Your task to perform on an android device: turn off notifications in google photos Image 0: 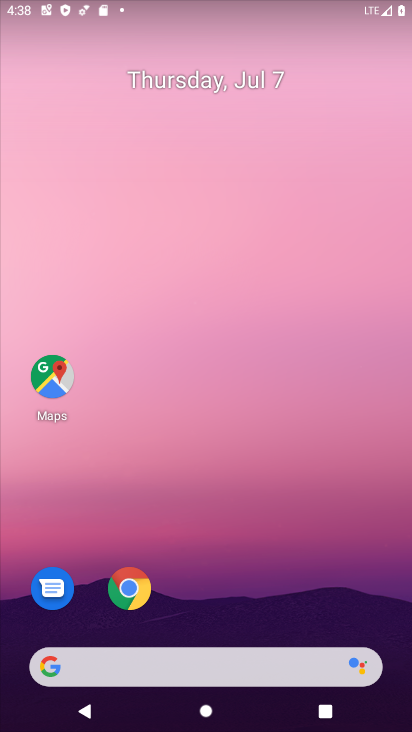
Step 0: press home button
Your task to perform on an android device: turn off notifications in google photos Image 1: 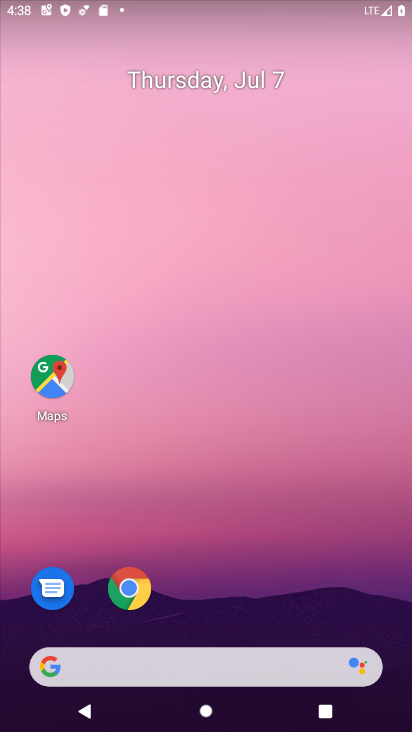
Step 1: drag from (323, 672) to (293, 81)
Your task to perform on an android device: turn off notifications in google photos Image 2: 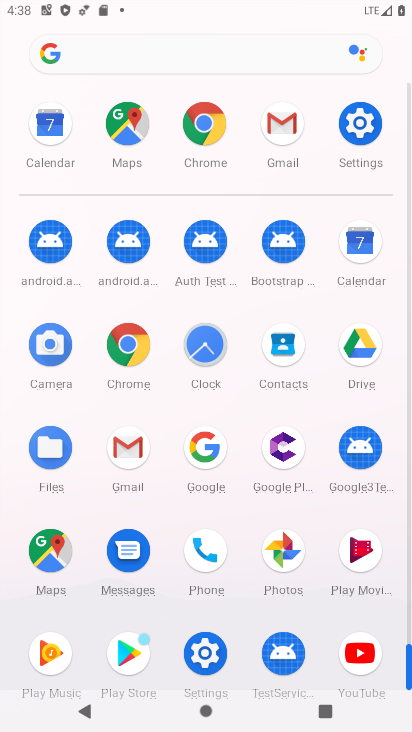
Step 2: click (273, 554)
Your task to perform on an android device: turn off notifications in google photos Image 3: 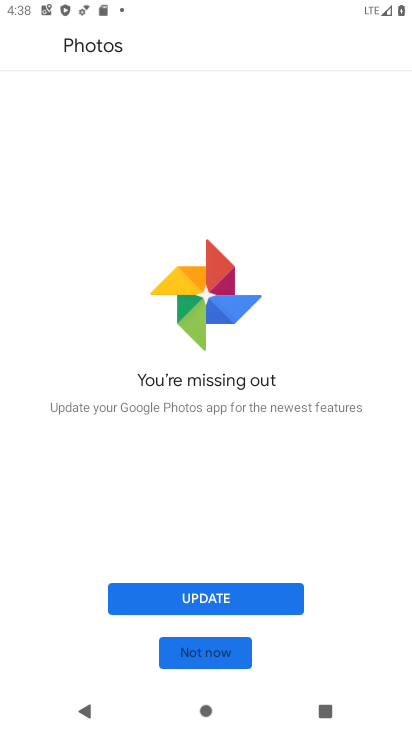
Step 3: click (233, 595)
Your task to perform on an android device: turn off notifications in google photos Image 4: 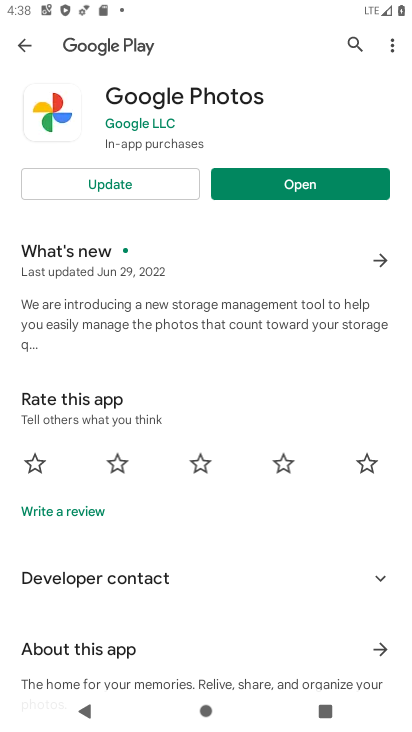
Step 4: click (159, 183)
Your task to perform on an android device: turn off notifications in google photos Image 5: 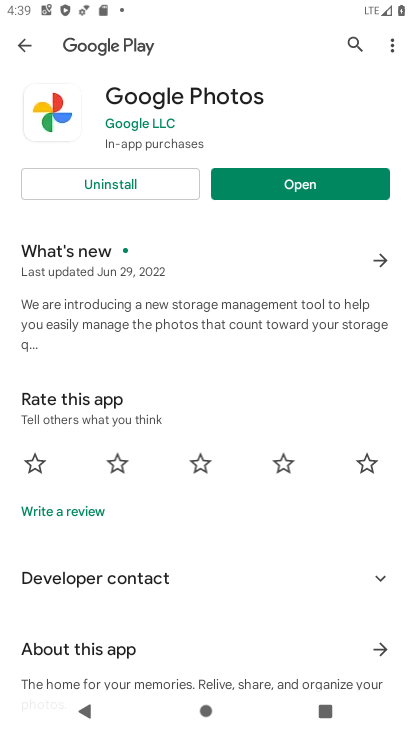
Step 5: click (240, 188)
Your task to perform on an android device: turn off notifications in google photos Image 6: 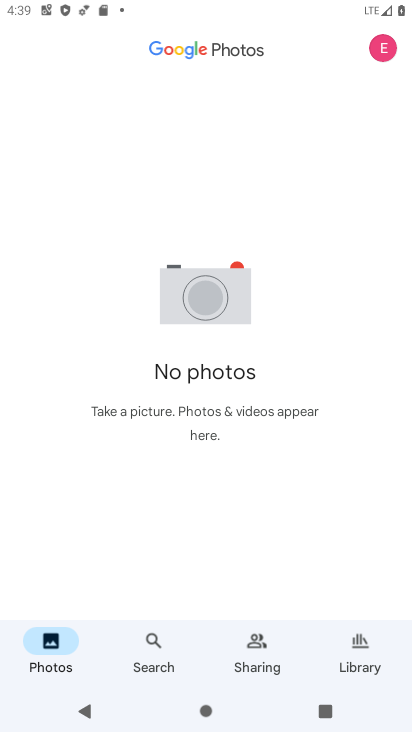
Step 6: click (376, 54)
Your task to perform on an android device: turn off notifications in google photos Image 7: 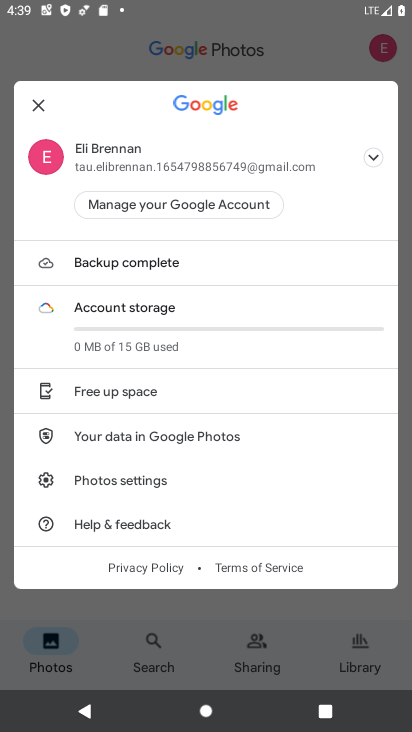
Step 7: click (155, 479)
Your task to perform on an android device: turn off notifications in google photos Image 8: 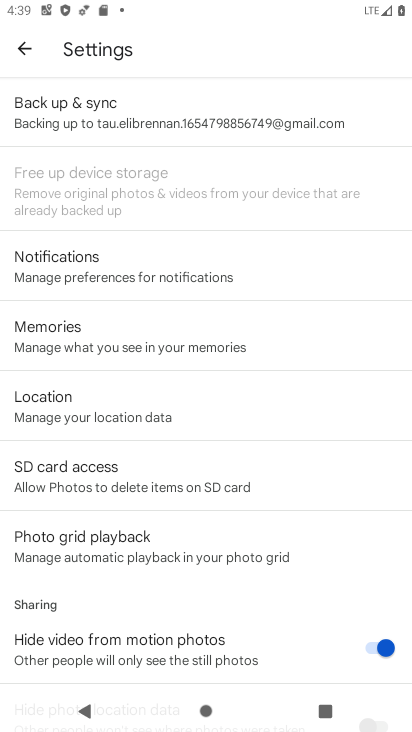
Step 8: click (105, 253)
Your task to perform on an android device: turn off notifications in google photos Image 9: 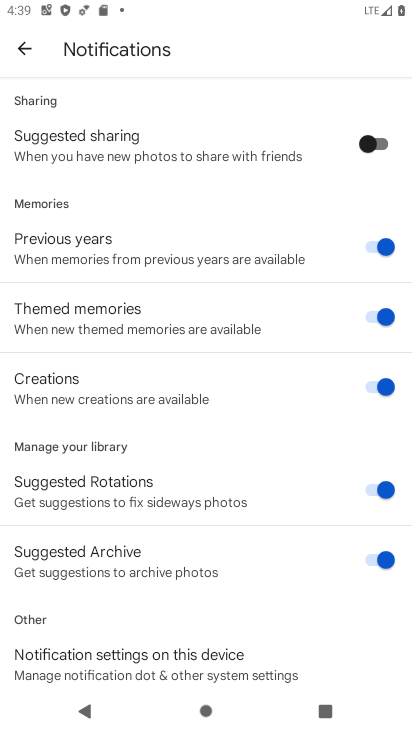
Step 9: drag from (163, 636) to (150, 539)
Your task to perform on an android device: turn off notifications in google photos Image 10: 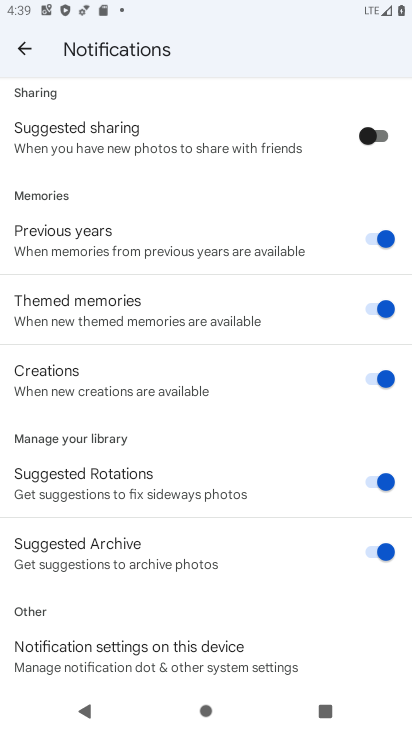
Step 10: click (186, 644)
Your task to perform on an android device: turn off notifications in google photos Image 11: 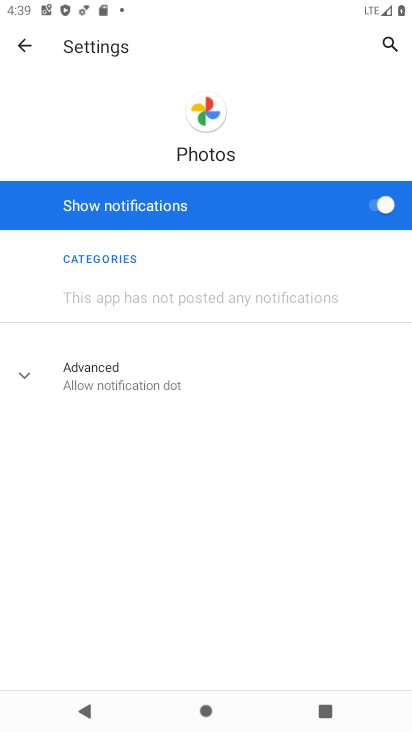
Step 11: click (384, 207)
Your task to perform on an android device: turn off notifications in google photos Image 12: 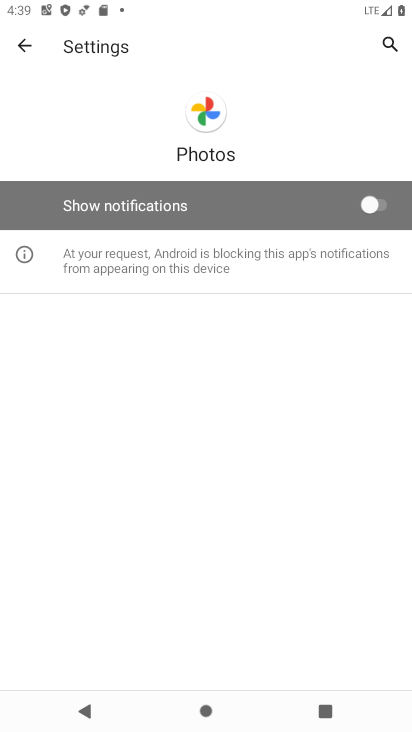
Step 12: task complete